Your task to perform on an android device: Open my contact list Image 0: 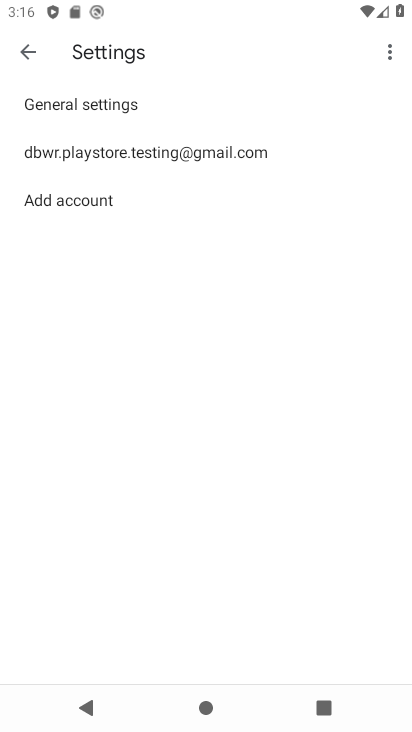
Step 0: press home button
Your task to perform on an android device: Open my contact list Image 1: 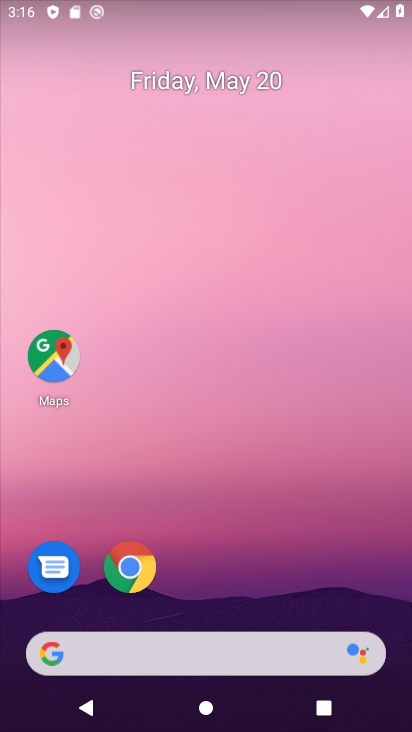
Step 1: drag from (295, 527) to (294, 34)
Your task to perform on an android device: Open my contact list Image 2: 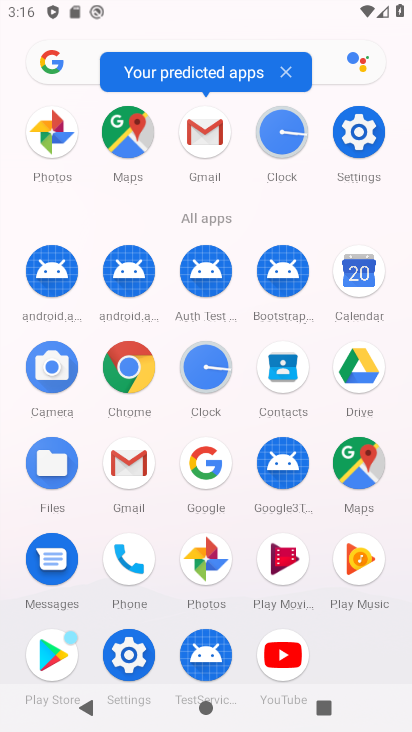
Step 2: click (129, 566)
Your task to perform on an android device: Open my contact list Image 3: 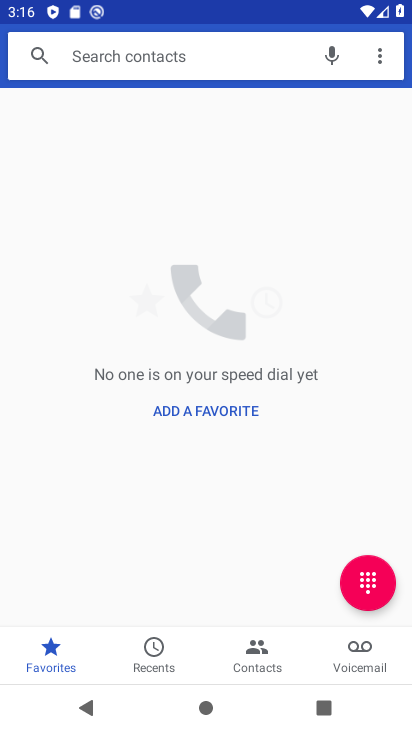
Step 3: click (267, 665)
Your task to perform on an android device: Open my contact list Image 4: 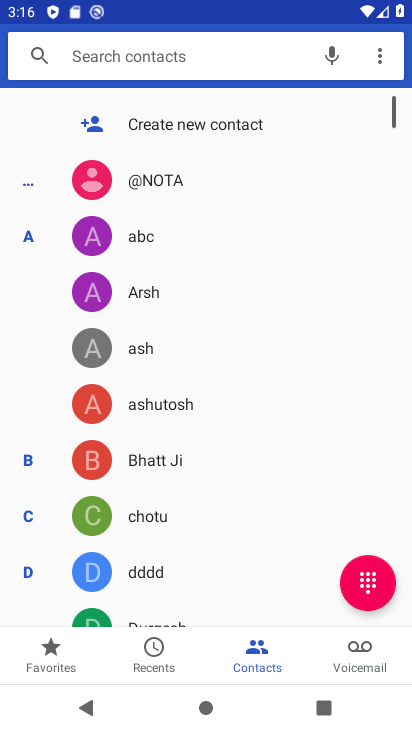
Step 4: task complete